Your task to perform on an android device: change keyboard looks Image 0: 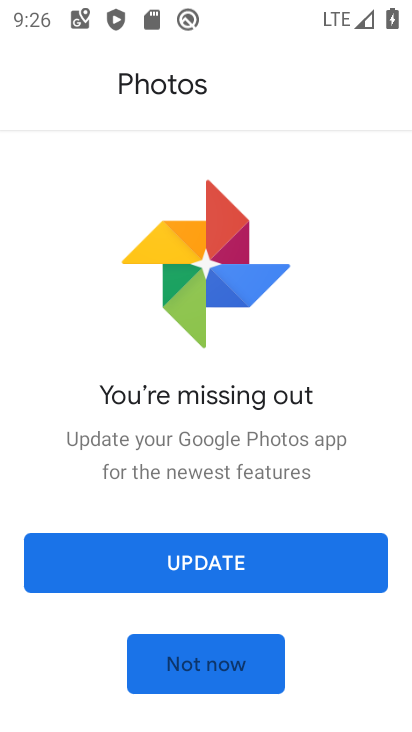
Step 0: press home button
Your task to perform on an android device: change keyboard looks Image 1: 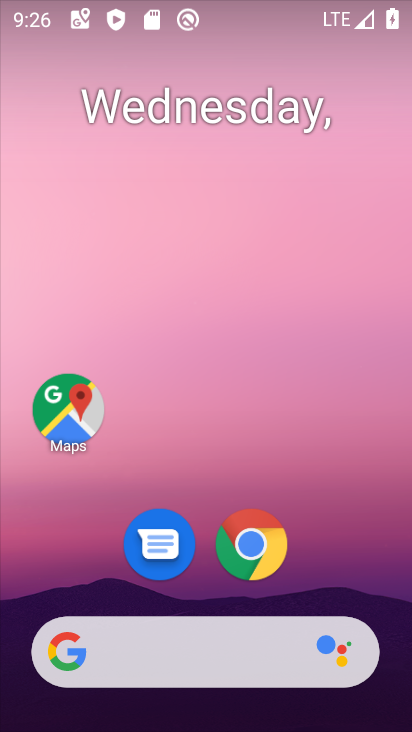
Step 1: drag from (224, 586) to (252, 41)
Your task to perform on an android device: change keyboard looks Image 2: 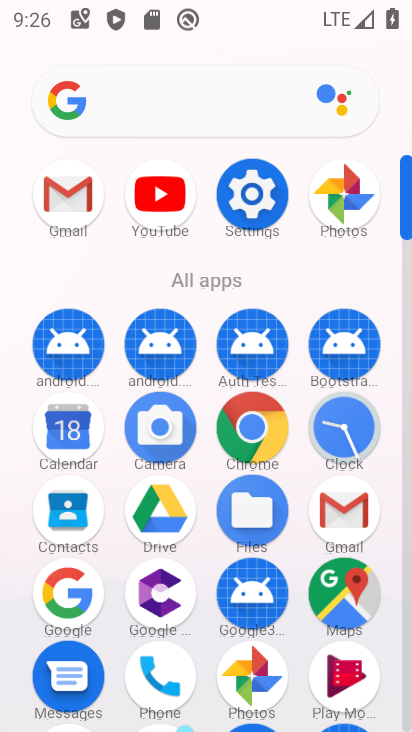
Step 2: click (259, 198)
Your task to perform on an android device: change keyboard looks Image 3: 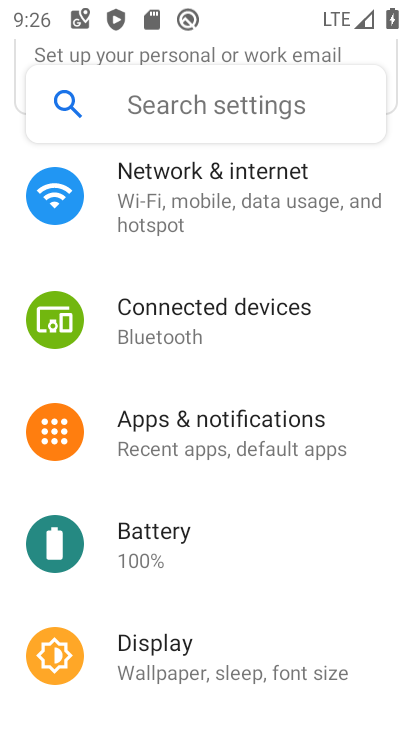
Step 3: drag from (94, 687) to (221, 98)
Your task to perform on an android device: change keyboard looks Image 4: 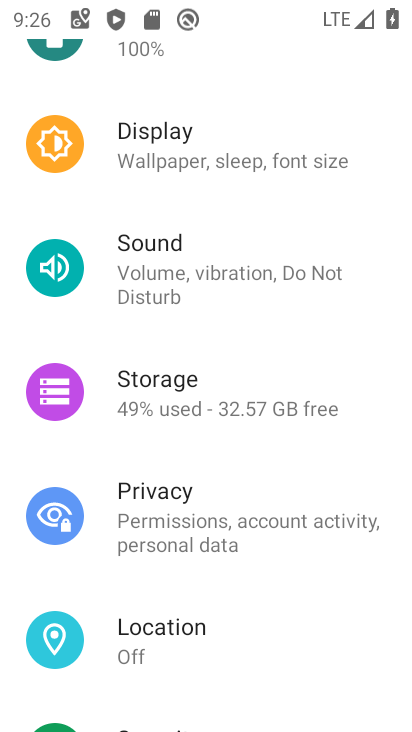
Step 4: drag from (132, 620) to (135, 245)
Your task to perform on an android device: change keyboard looks Image 5: 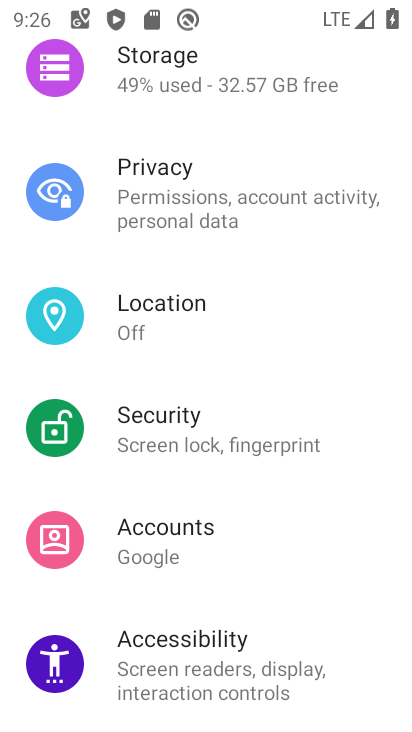
Step 5: drag from (129, 690) to (190, 253)
Your task to perform on an android device: change keyboard looks Image 6: 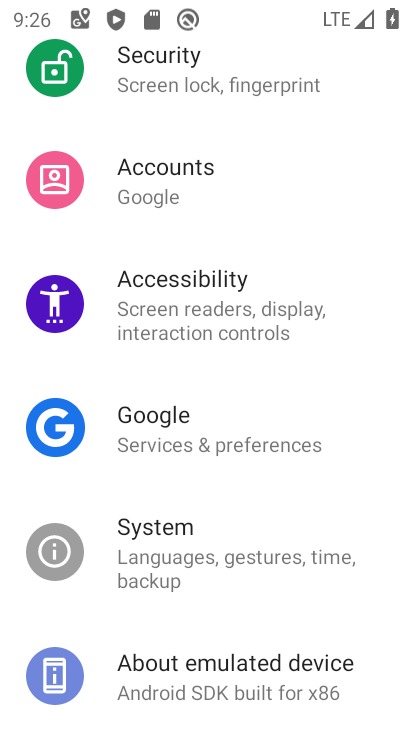
Step 6: click (184, 561)
Your task to perform on an android device: change keyboard looks Image 7: 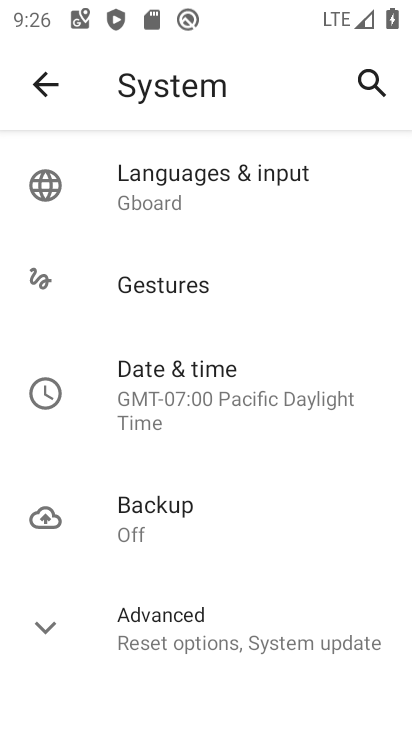
Step 7: click (159, 206)
Your task to perform on an android device: change keyboard looks Image 8: 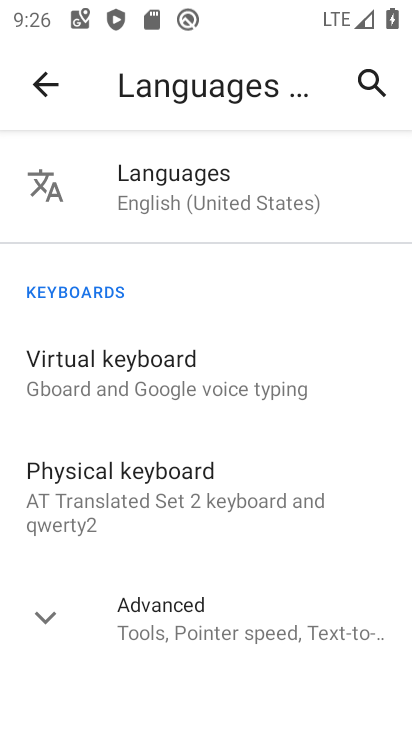
Step 8: click (140, 360)
Your task to perform on an android device: change keyboard looks Image 9: 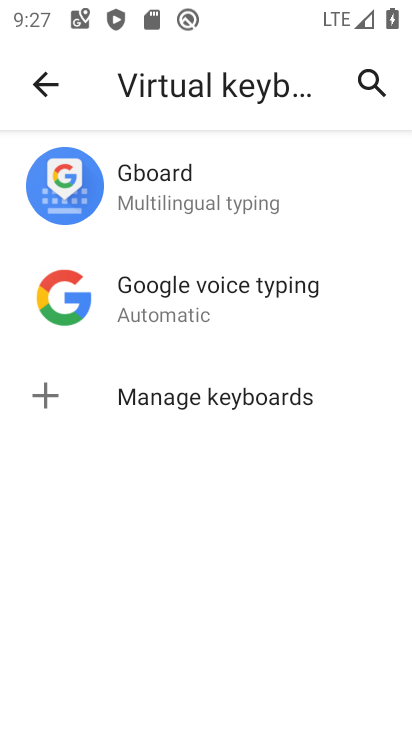
Step 9: click (182, 184)
Your task to perform on an android device: change keyboard looks Image 10: 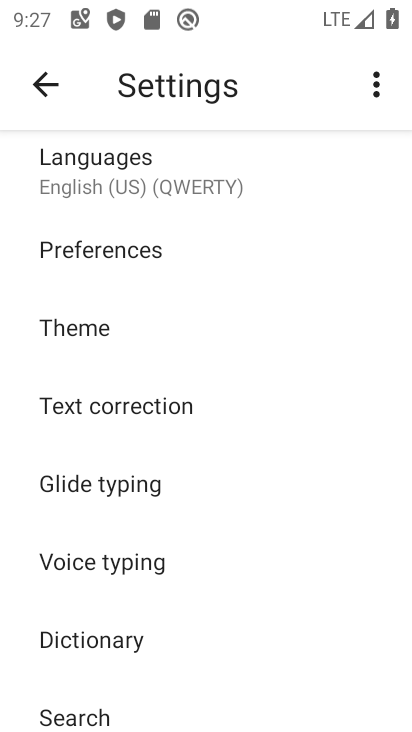
Step 10: click (78, 339)
Your task to perform on an android device: change keyboard looks Image 11: 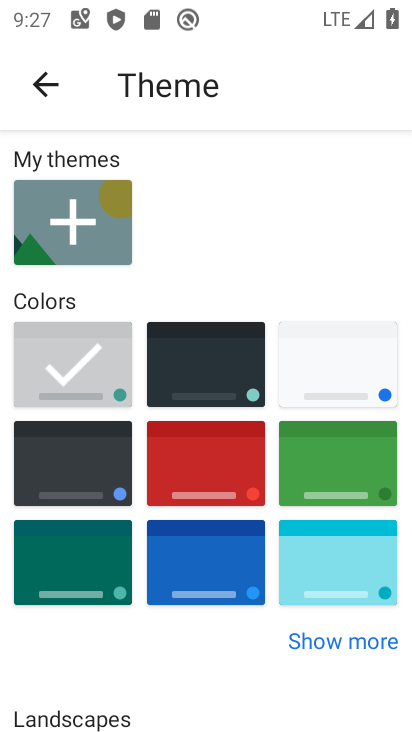
Step 11: click (209, 476)
Your task to perform on an android device: change keyboard looks Image 12: 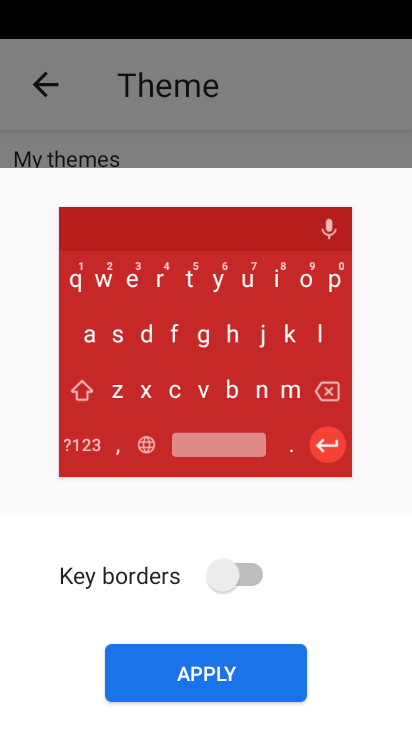
Step 12: click (244, 576)
Your task to perform on an android device: change keyboard looks Image 13: 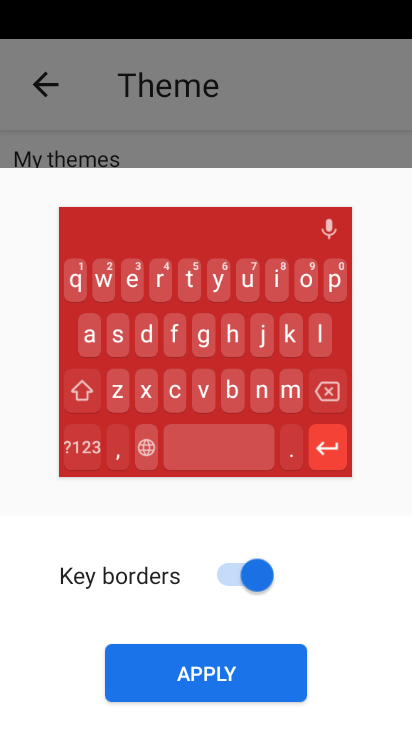
Step 13: click (219, 668)
Your task to perform on an android device: change keyboard looks Image 14: 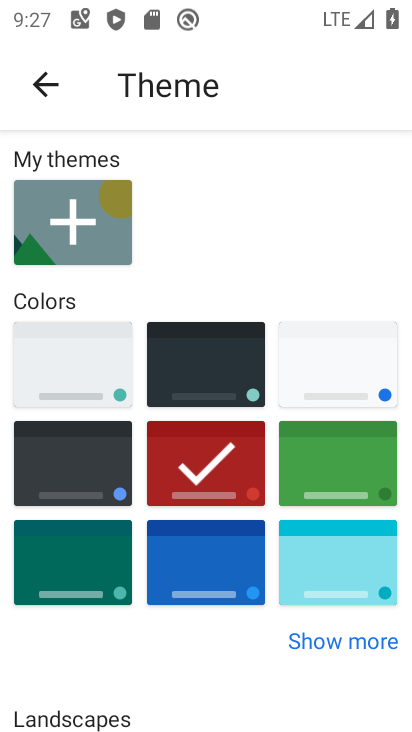
Step 14: task complete